Your task to perform on an android device: snooze an email in the gmail app Image 0: 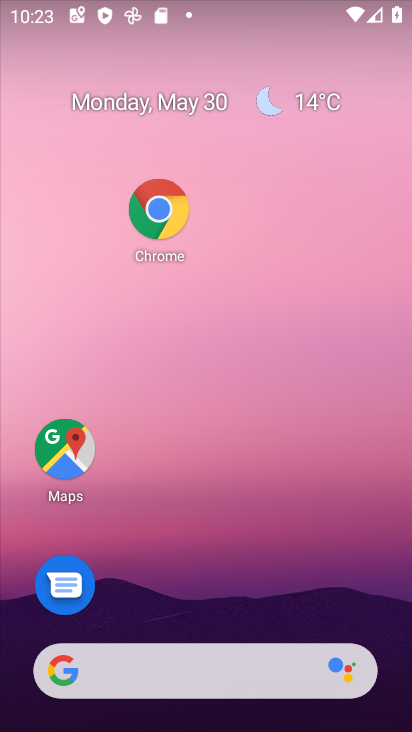
Step 0: drag from (195, 526) to (245, 146)
Your task to perform on an android device: snooze an email in the gmail app Image 1: 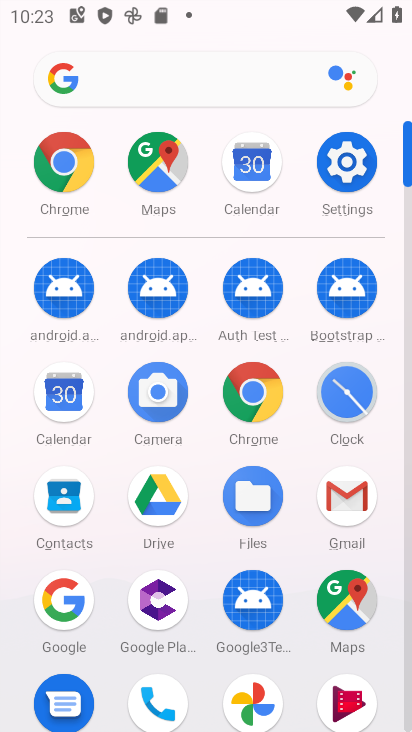
Step 1: click (336, 491)
Your task to perform on an android device: snooze an email in the gmail app Image 2: 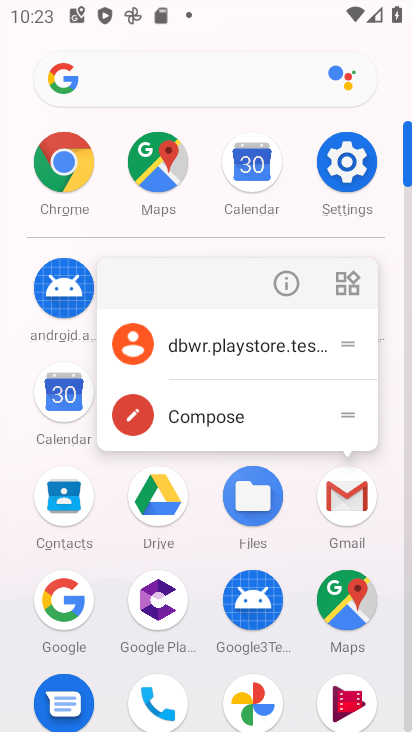
Step 2: click (286, 282)
Your task to perform on an android device: snooze an email in the gmail app Image 3: 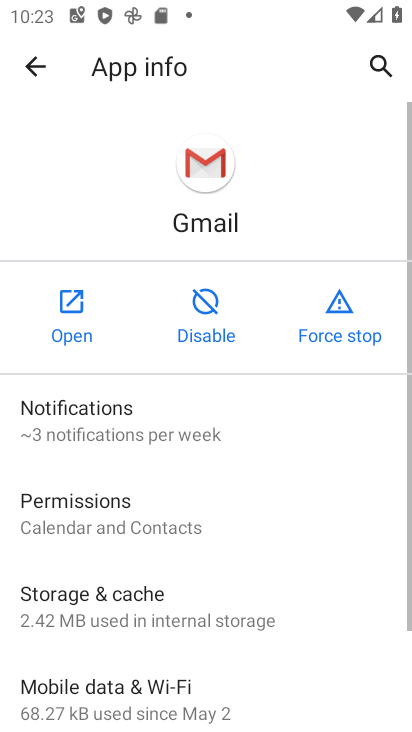
Step 3: click (47, 314)
Your task to perform on an android device: snooze an email in the gmail app Image 4: 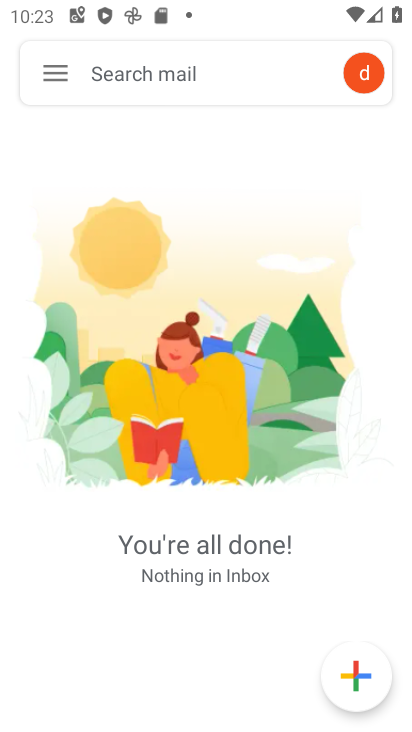
Step 4: click (49, 61)
Your task to perform on an android device: snooze an email in the gmail app Image 5: 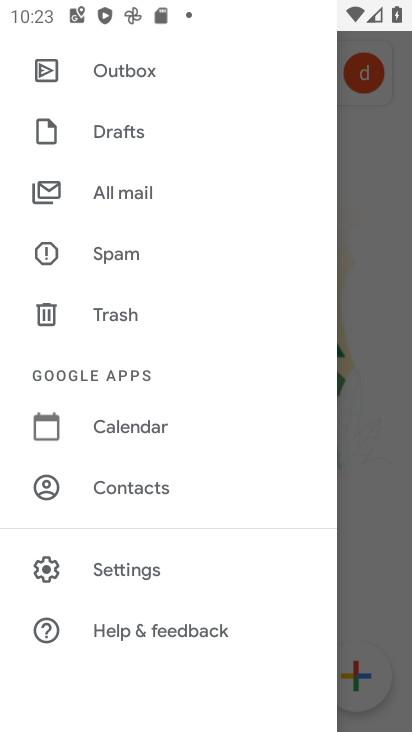
Step 5: drag from (110, 153) to (150, 517)
Your task to perform on an android device: snooze an email in the gmail app Image 6: 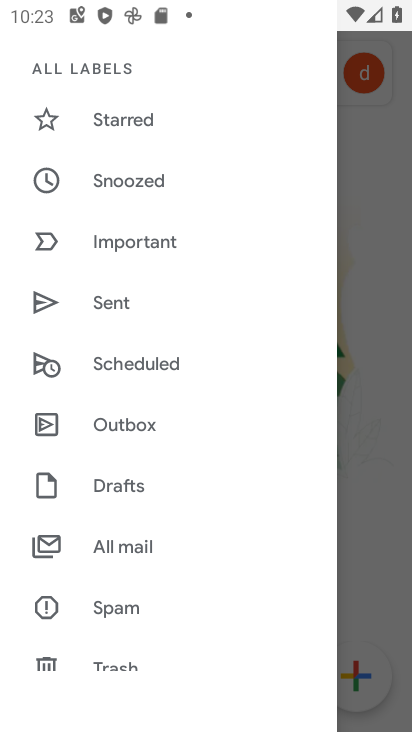
Step 6: drag from (129, 173) to (203, 484)
Your task to perform on an android device: snooze an email in the gmail app Image 7: 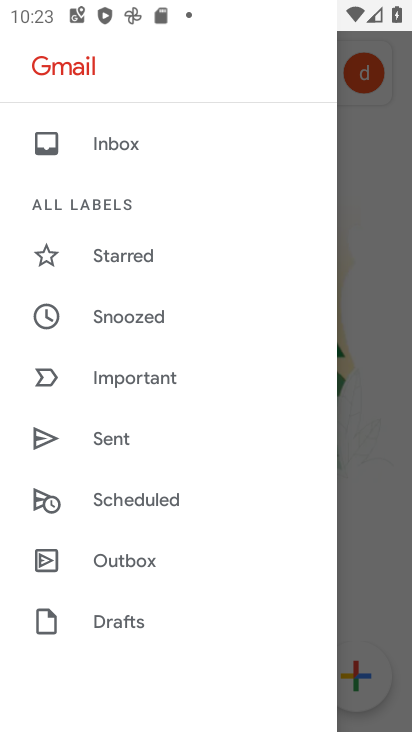
Step 7: click (167, 146)
Your task to perform on an android device: snooze an email in the gmail app Image 8: 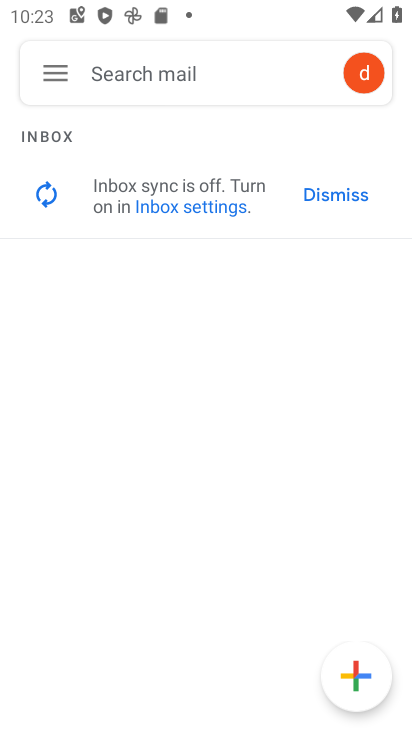
Step 8: task complete